Your task to perform on an android device: Open settings on Google Maps Image 0: 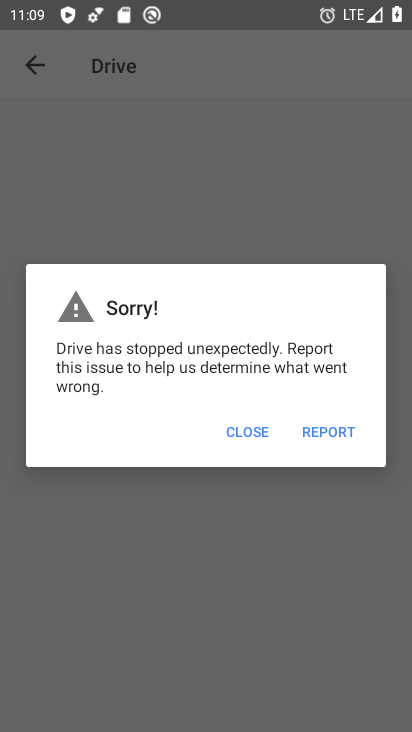
Step 0: drag from (340, 572) to (291, 215)
Your task to perform on an android device: Open settings on Google Maps Image 1: 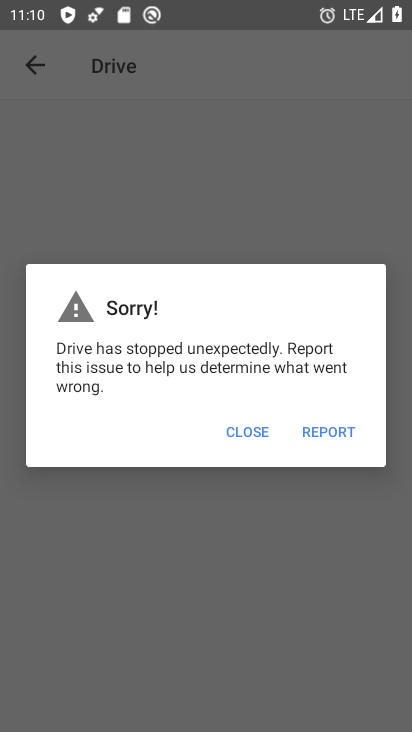
Step 1: press home button
Your task to perform on an android device: Open settings on Google Maps Image 2: 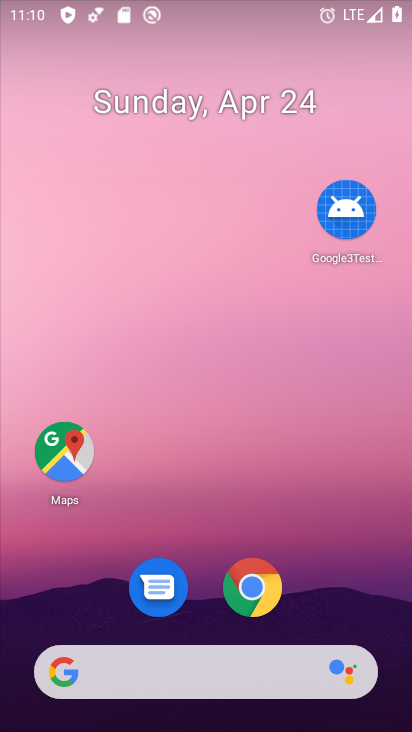
Step 2: drag from (283, 545) to (271, 104)
Your task to perform on an android device: Open settings on Google Maps Image 3: 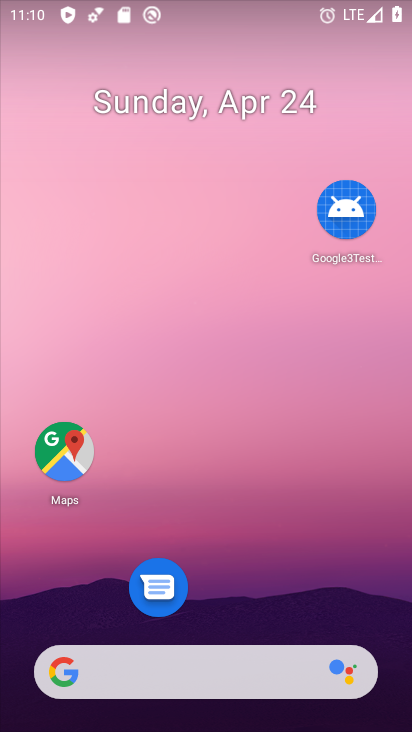
Step 3: drag from (335, 584) to (285, 261)
Your task to perform on an android device: Open settings on Google Maps Image 4: 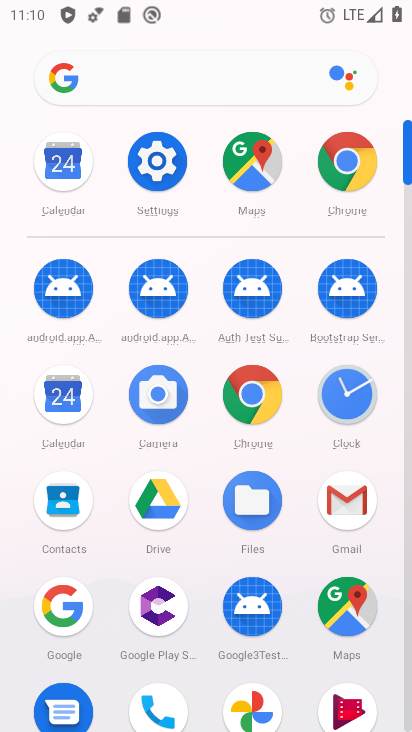
Step 4: click (351, 597)
Your task to perform on an android device: Open settings on Google Maps Image 5: 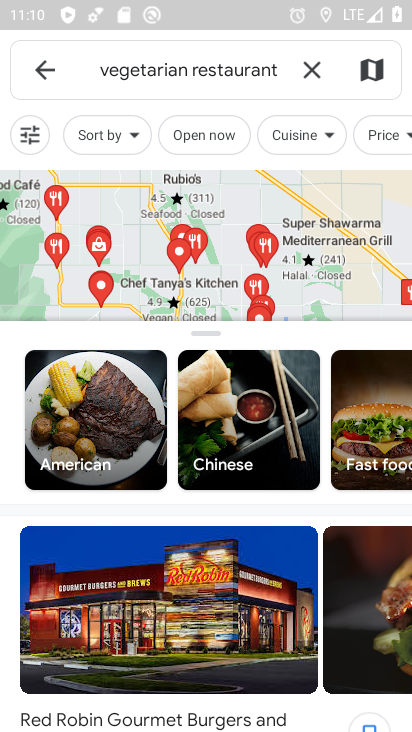
Step 5: drag from (281, 662) to (296, 377)
Your task to perform on an android device: Open settings on Google Maps Image 6: 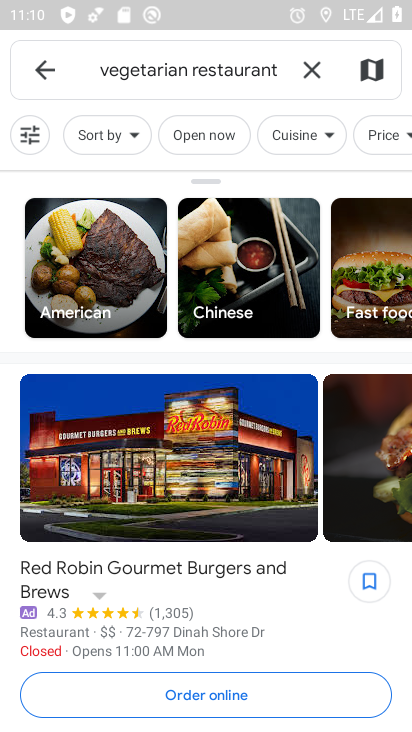
Step 6: click (56, 65)
Your task to perform on an android device: Open settings on Google Maps Image 7: 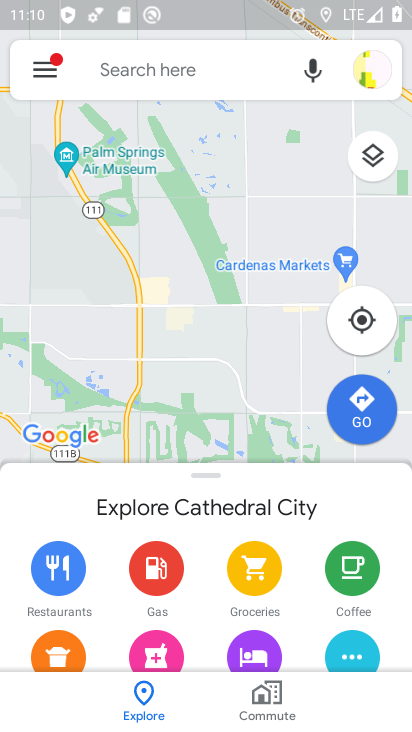
Step 7: click (43, 65)
Your task to perform on an android device: Open settings on Google Maps Image 8: 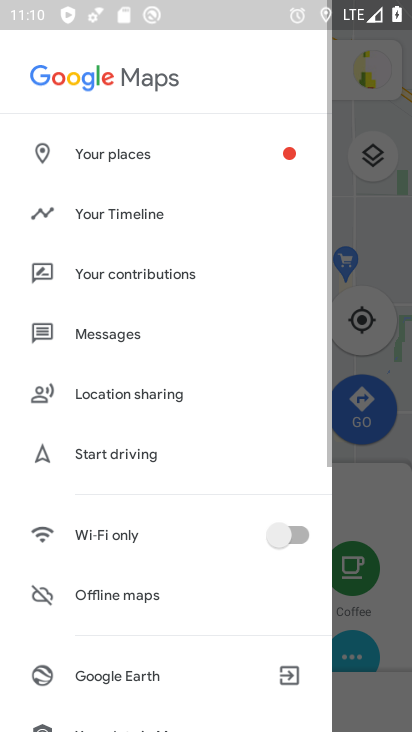
Step 8: click (97, 216)
Your task to perform on an android device: Open settings on Google Maps Image 9: 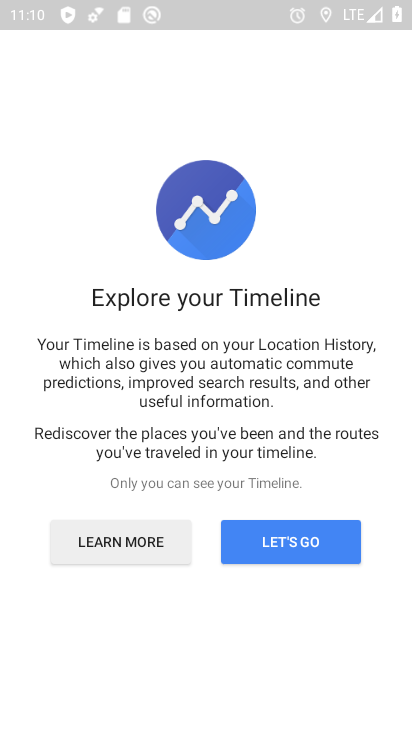
Step 9: click (294, 543)
Your task to perform on an android device: Open settings on Google Maps Image 10: 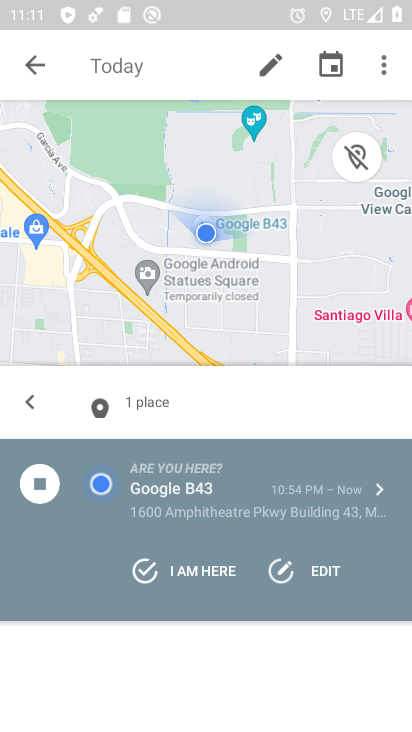
Step 10: click (384, 74)
Your task to perform on an android device: Open settings on Google Maps Image 11: 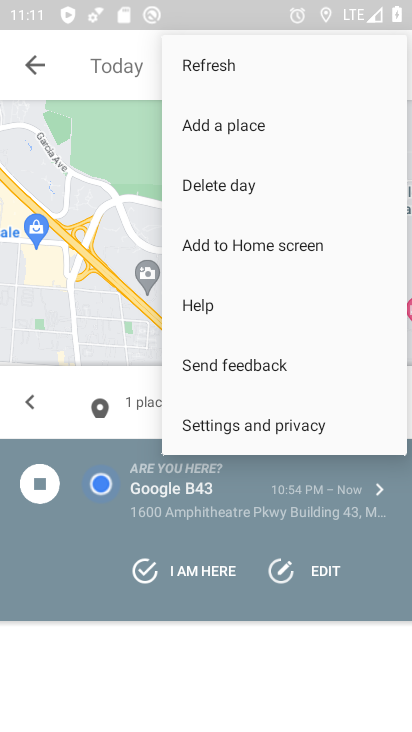
Step 11: click (250, 433)
Your task to perform on an android device: Open settings on Google Maps Image 12: 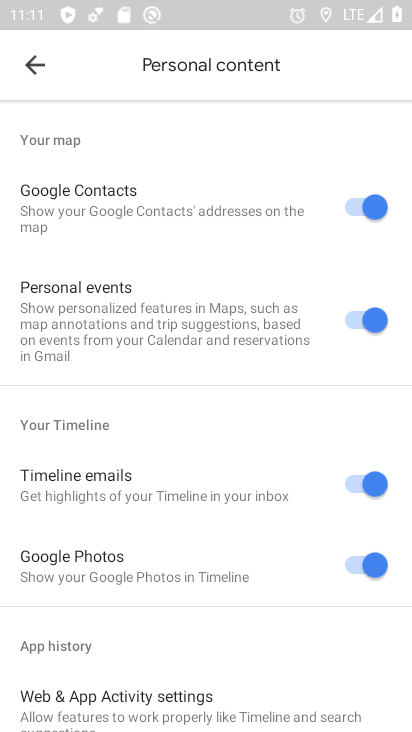
Step 12: task complete